Your task to perform on an android device: turn off improve location accuracy Image 0: 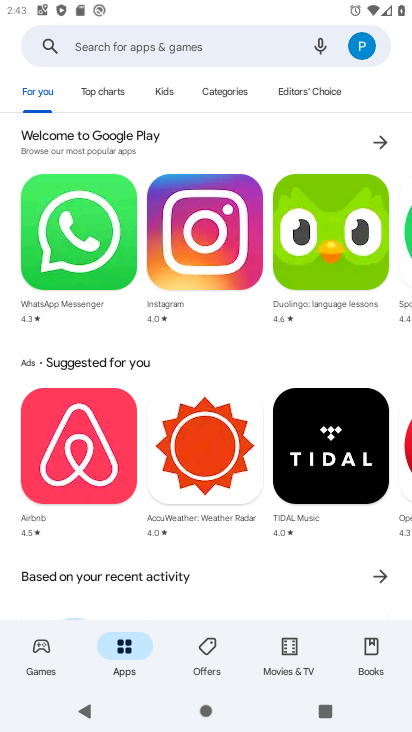
Step 0: press home button
Your task to perform on an android device: turn off improve location accuracy Image 1: 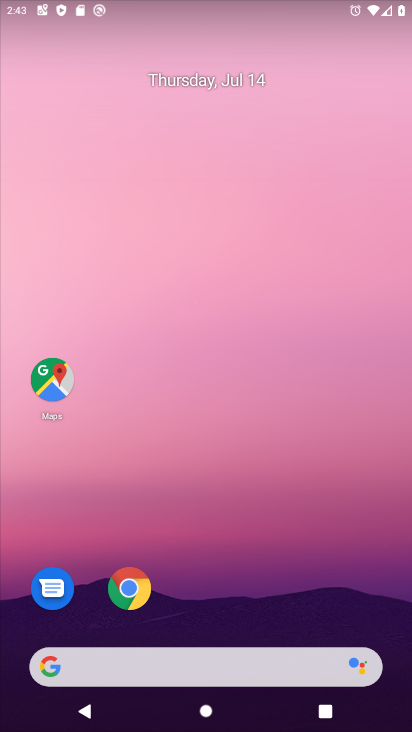
Step 1: drag from (309, 532) to (311, 183)
Your task to perform on an android device: turn off improve location accuracy Image 2: 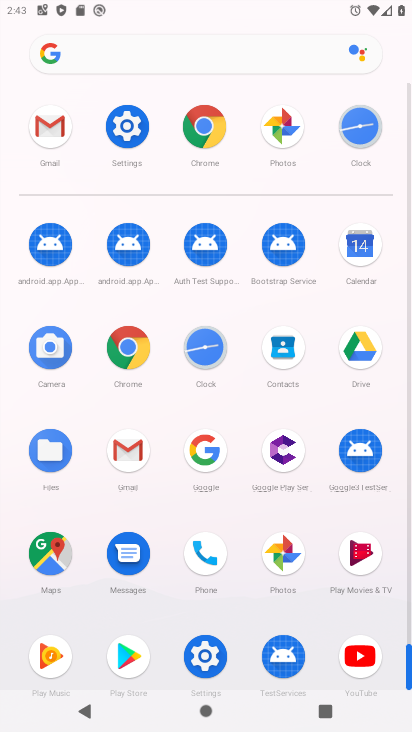
Step 2: click (120, 124)
Your task to perform on an android device: turn off improve location accuracy Image 3: 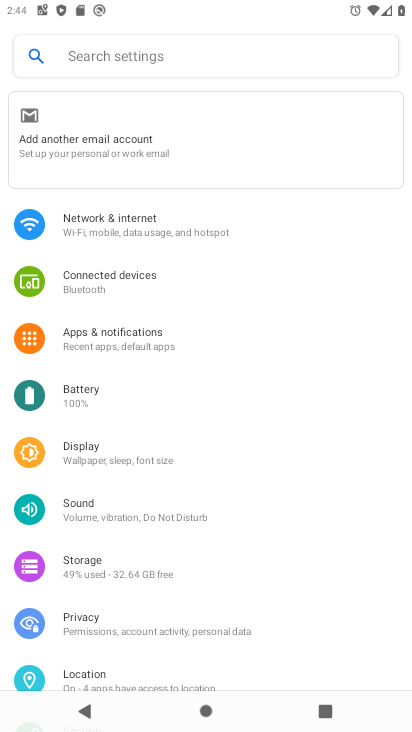
Step 3: click (105, 674)
Your task to perform on an android device: turn off improve location accuracy Image 4: 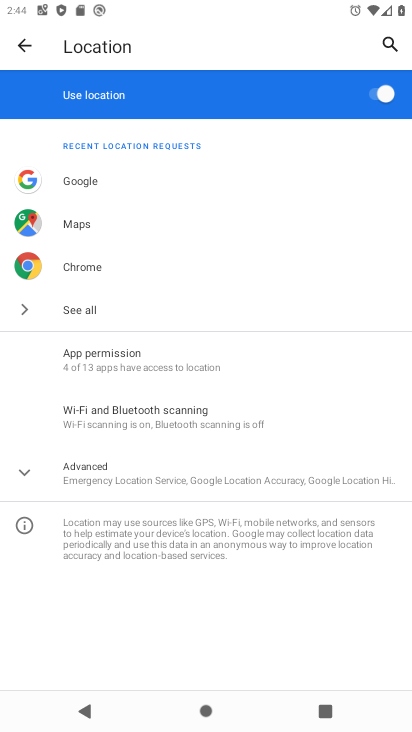
Step 4: click (94, 477)
Your task to perform on an android device: turn off improve location accuracy Image 5: 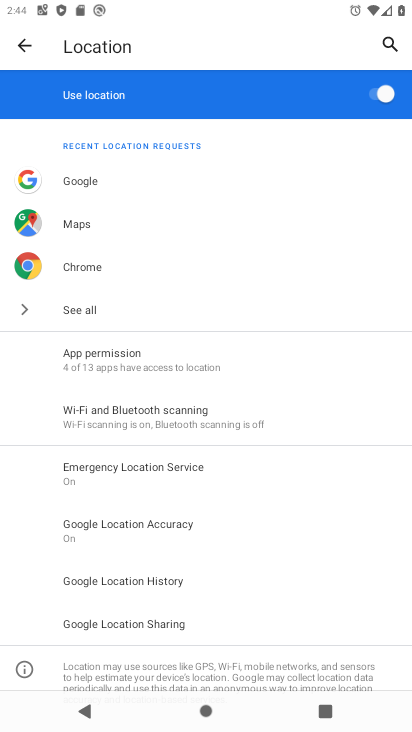
Step 5: click (170, 534)
Your task to perform on an android device: turn off improve location accuracy Image 6: 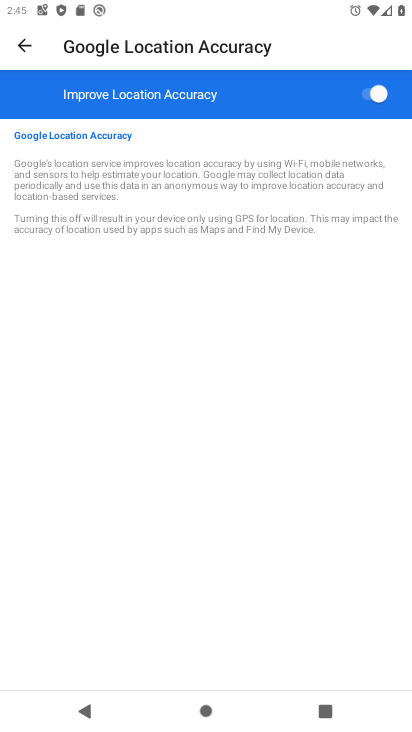
Step 6: click (364, 86)
Your task to perform on an android device: turn off improve location accuracy Image 7: 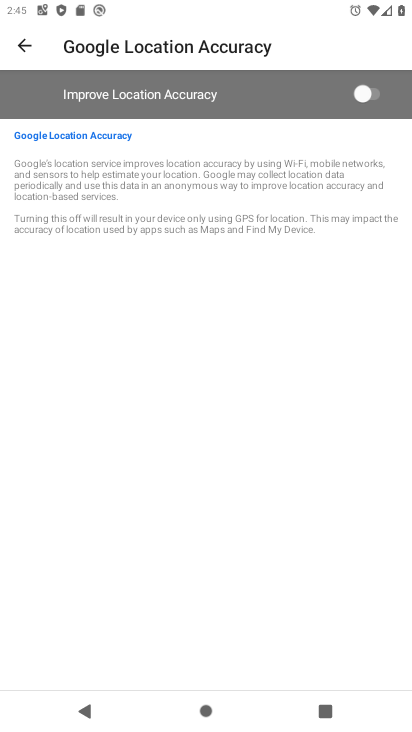
Step 7: task complete